Your task to perform on an android device: turn off notifications settings in the gmail app Image 0: 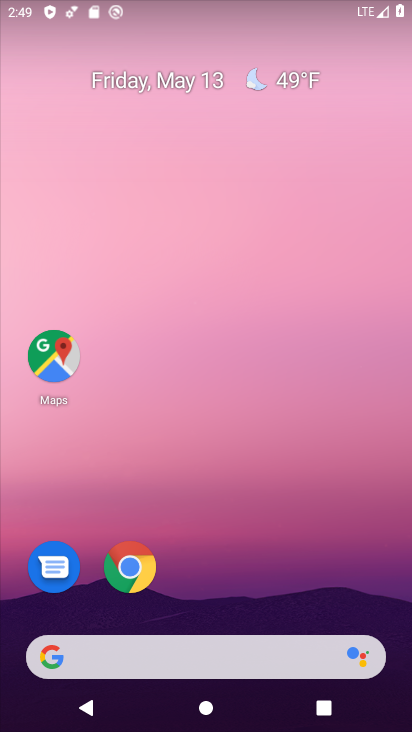
Step 0: drag from (197, 609) to (141, 119)
Your task to perform on an android device: turn off notifications settings in the gmail app Image 1: 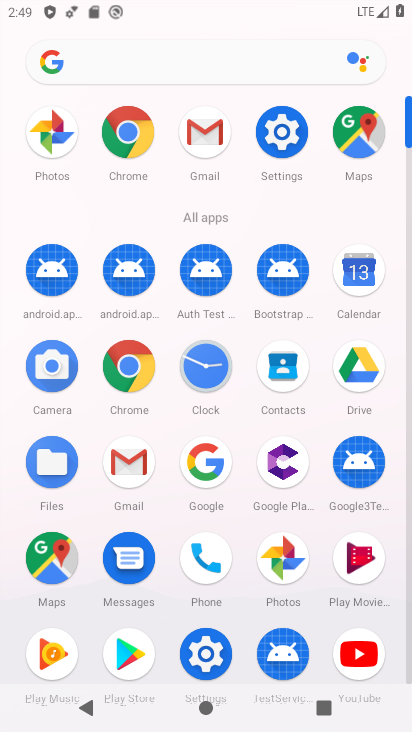
Step 1: click (134, 481)
Your task to perform on an android device: turn off notifications settings in the gmail app Image 2: 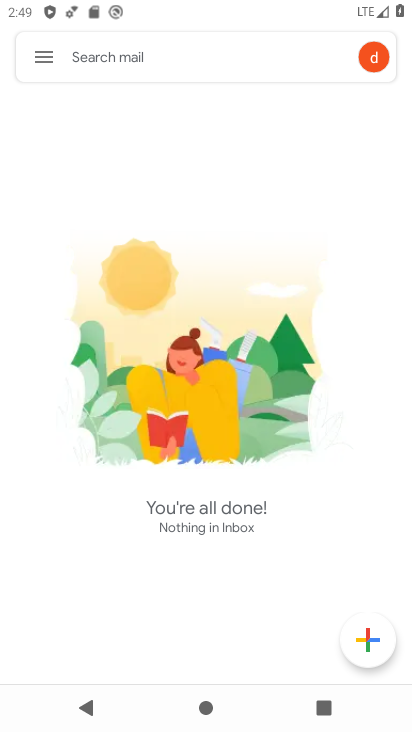
Step 2: click (41, 52)
Your task to perform on an android device: turn off notifications settings in the gmail app Image 3: 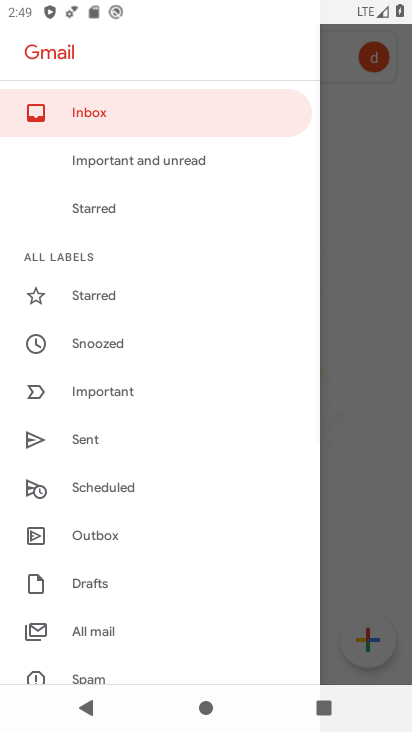
Step 3: drag from (125, 566) to (99, 172)
Your task to perform on an android device: turn off notifications settings in the gmail app Image 4: 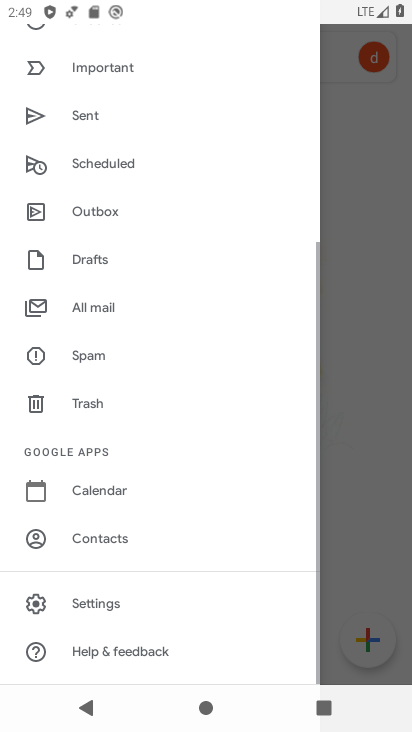
Step 4: click (99, 597)
Your task to perform on an android device: turn off notifications settings in the gmail app Image 5: 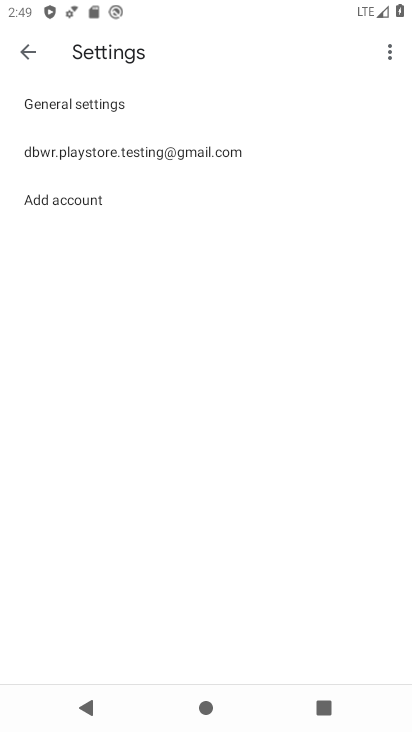
Step 5: click (68, 103)
Your task to perform on an android device: turn off notifications settings in the gmail app Image 6: 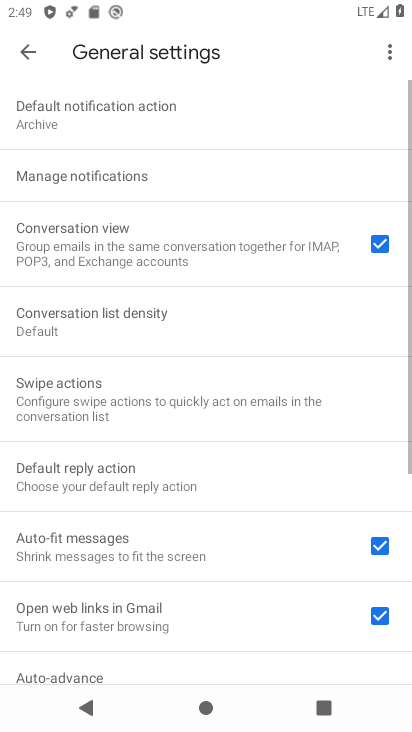
Step 6: click (121, 177)
Your task to perform on an android device: turn off notifications settings in the gmail app Image 7: 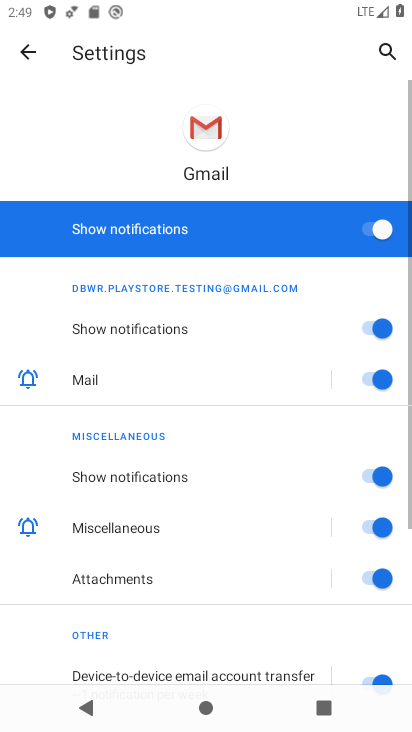
Step 7: click (369, 211)
Your task to perform on an android device: turn off notifications settings in the gmail app Image 8: 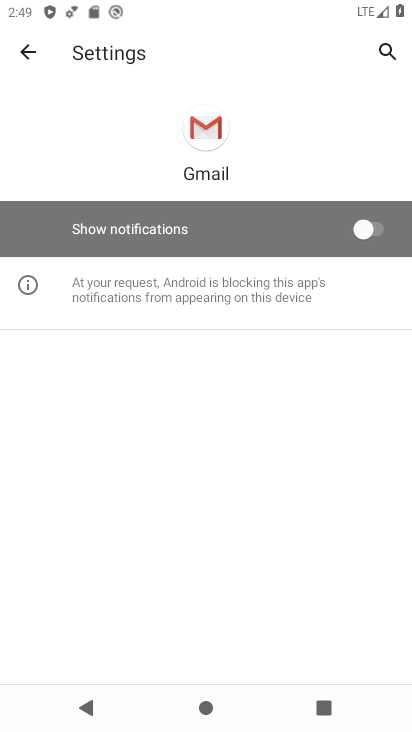
Step 8: task complete